Your task to perform on an android device: When is my next appointment? Image 0: 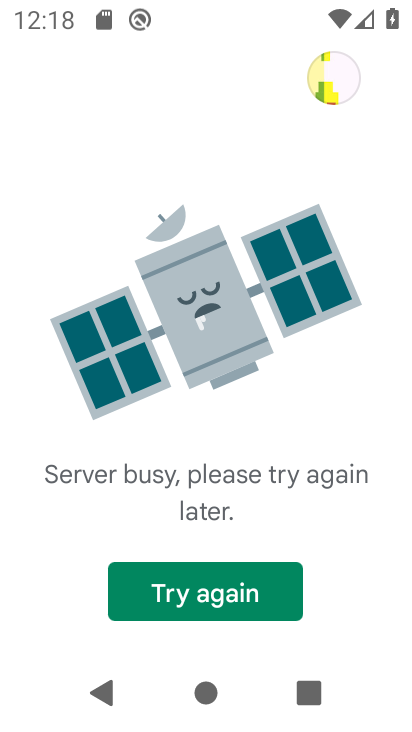
Step 0: press home button
Your task to perform on an android device: When is my next appointment? Image 1: 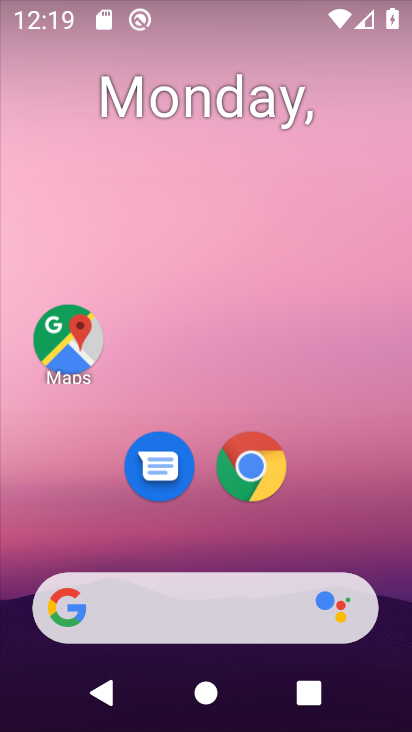
Step 1: drag from (227, 556) to (287, 140)
Your task to perform on an android device: When is my next appointment? Image 2: 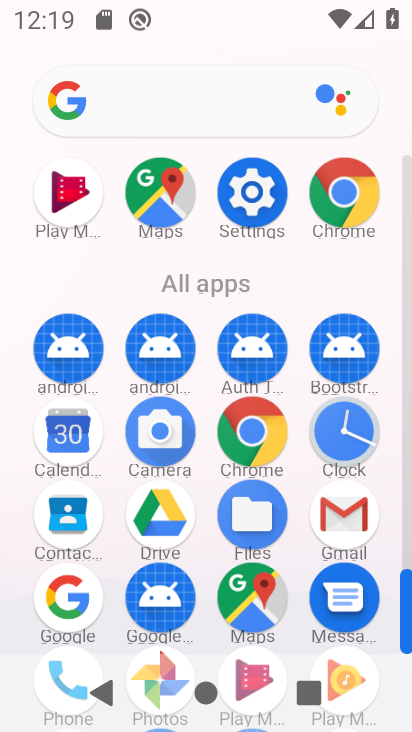
Step 2: click (55, 471)
Your task to perform on an android device: When is my next appointment? Image 3: 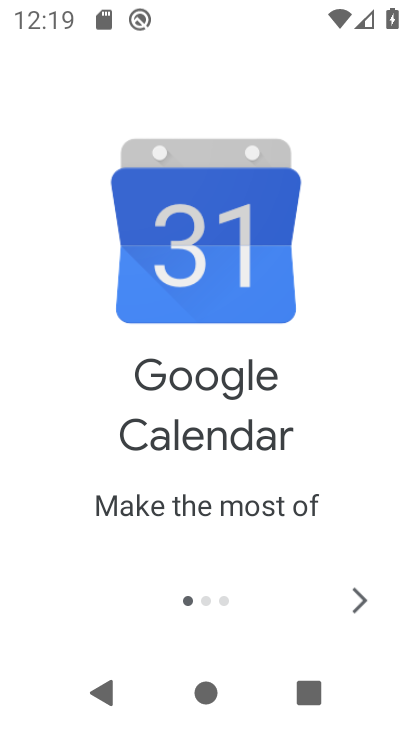
Step 3: click (356, 602)
Your task to perform on an android device: When is my next appointment? Image 4: 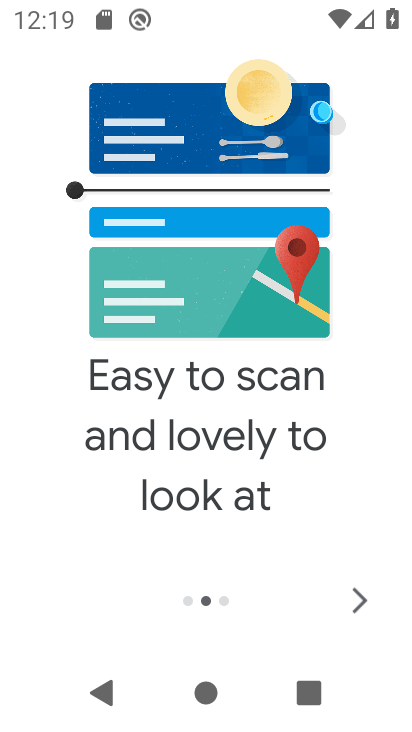
Step 4: click (356, 602)
Your task to perform on an android device: When is my next appointment? Image 5: 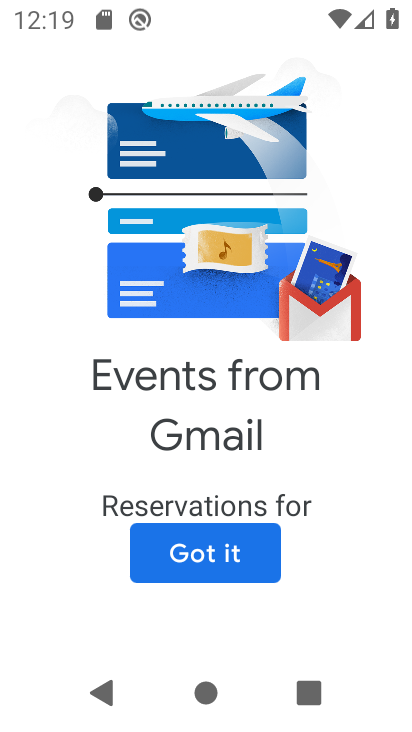
Step 5: click (190, 556)
Your task to perform on an android device: When is my next appointment? Image 6: 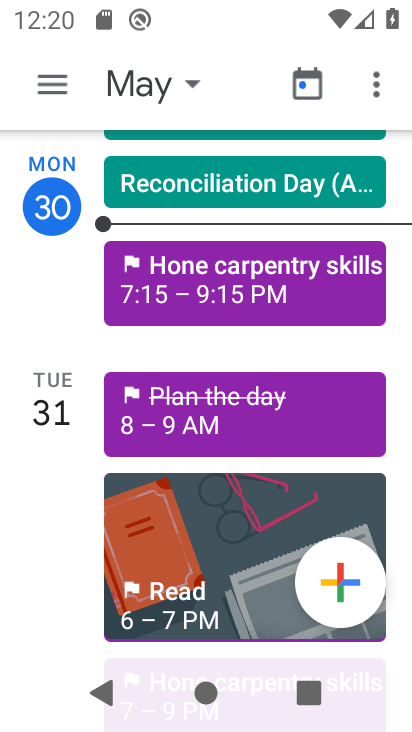
Step 6: task complete